Your task to perform on an android device: toggle pop-ups in chrome Image 0: 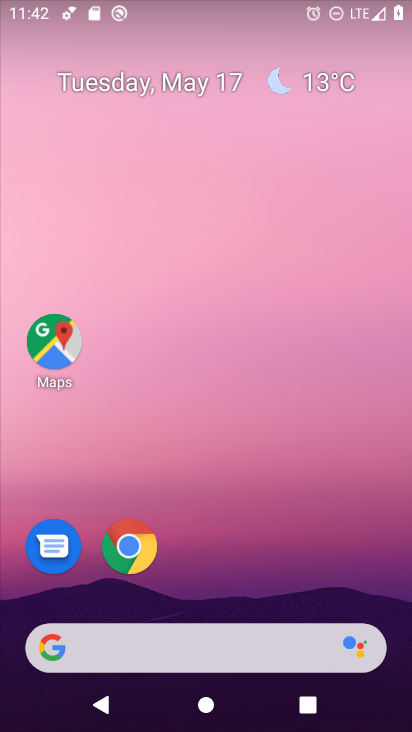
Step 0: click (141, 552)
Your task to perform on an android device: toggle pop-ups in chrome Image 1: 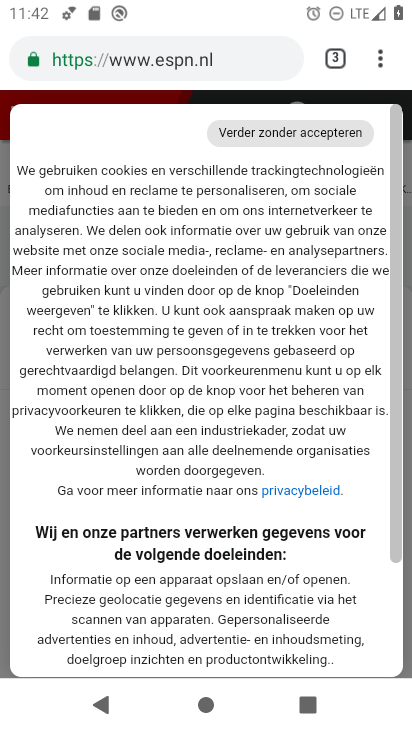
Step 1: click (378, 58)
Your task to perform on an android device: toggle pop-ups in chrome Image 2: 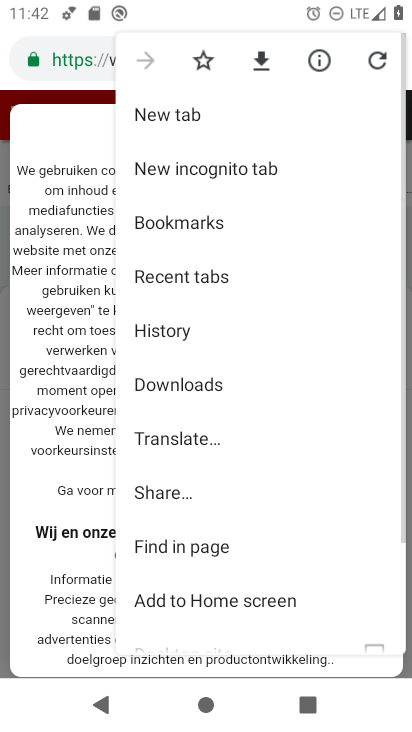
Step 2: drag from (263, 547) to (250, 171)
Your task to perform on an android device: toggle pop-ups in chrome Image 3: 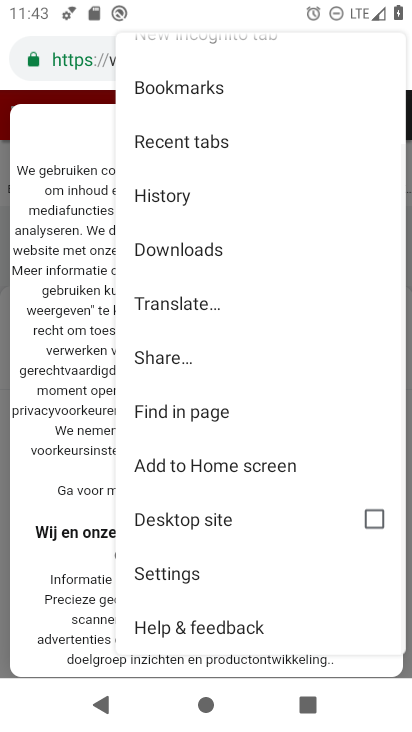
Step 3: click (150, 568)
Your task to perform on an android device: toggle pop-ups in chrome Image 4: 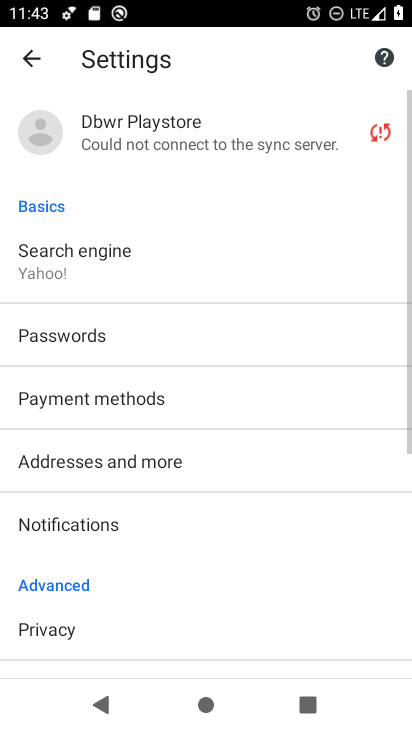
Step 4: drag from (150, 568) to (132, 458)
Your task to perform on an android device: toggle pop-ups in chrome Image 5: 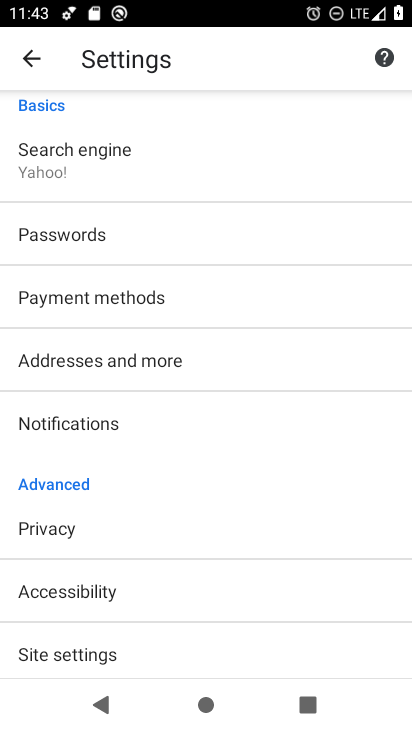
Step 5: drag from (173, 635) to (179, 472)
Your task to perform on an android device: toggle pop-ups in chrome Image 6: 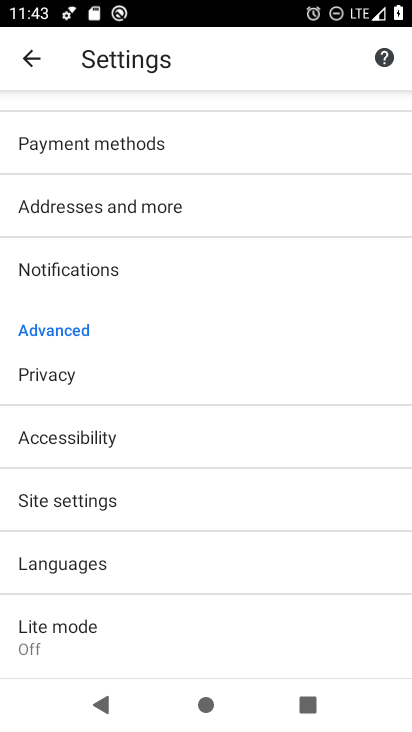
Step 6: click (71, 509)
Your task to perform on an android device: toggle pop-ups in chrome Image 7: 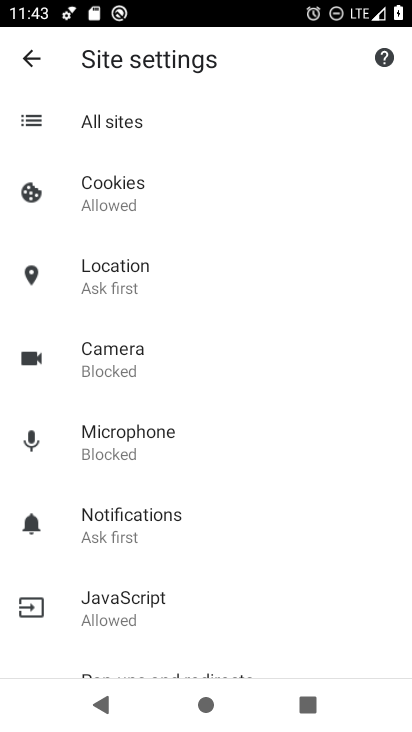
Step 7: drag from (221, 507) to (147, 176)
Your task to perform on an android device: toggle pop-ups in chrome Image 8: 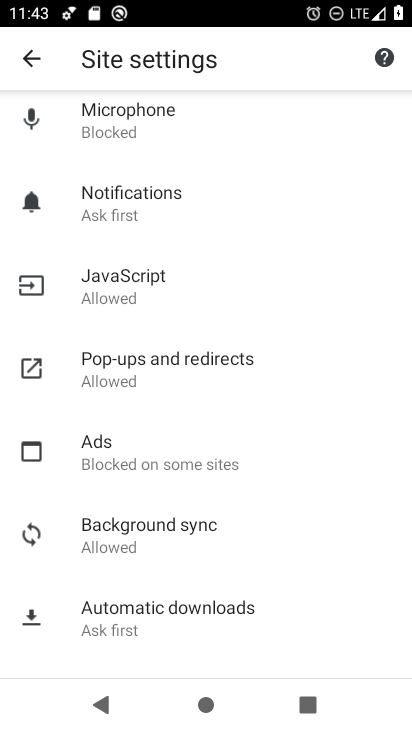
Step 8: click (86, 383)
Your task to perform on an android device: toggle pop-ups in chrome Image 9: 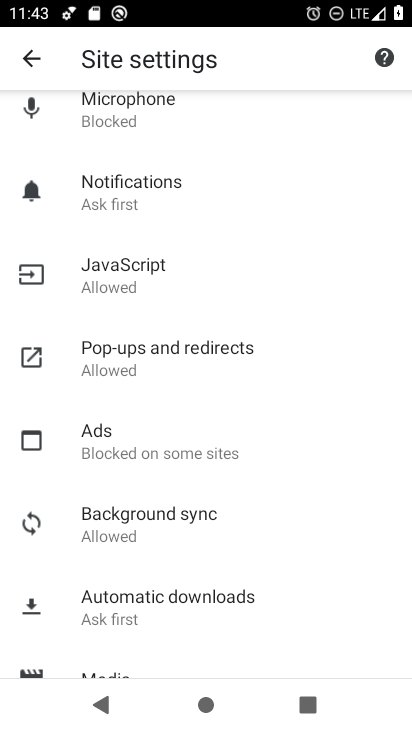
Step 9: click (94, 370)
Your task to perform on an android device: toggle pop-ups in chrome Image 10: 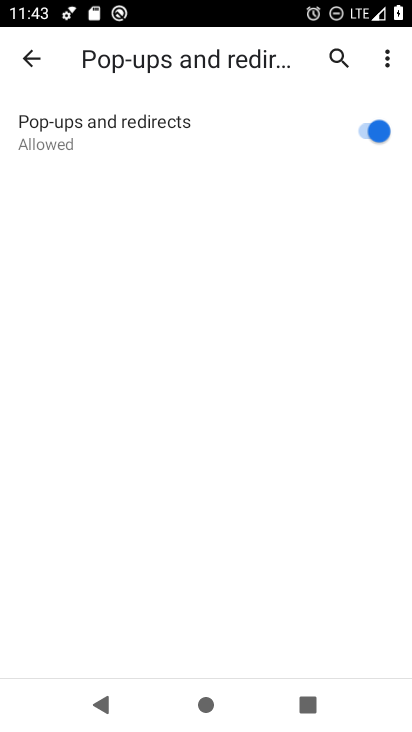
Step 10: click (380, 131)
Your task to perform on an android device: toggle pop-ups in chrome Image 11: 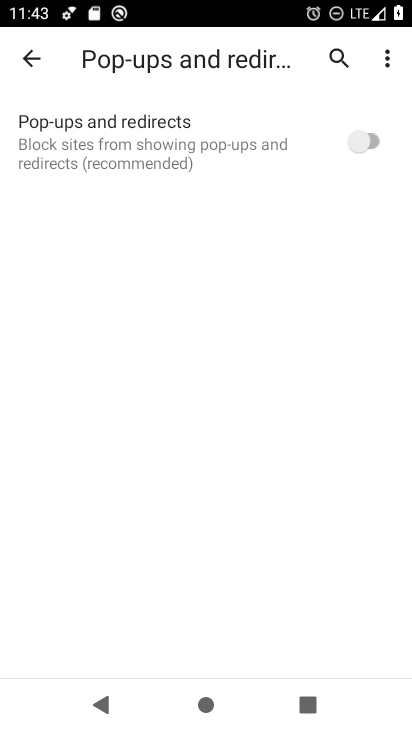
Step 11: task complete